Your task to perform on an android device: Do I have any events this weekend? Image 0: 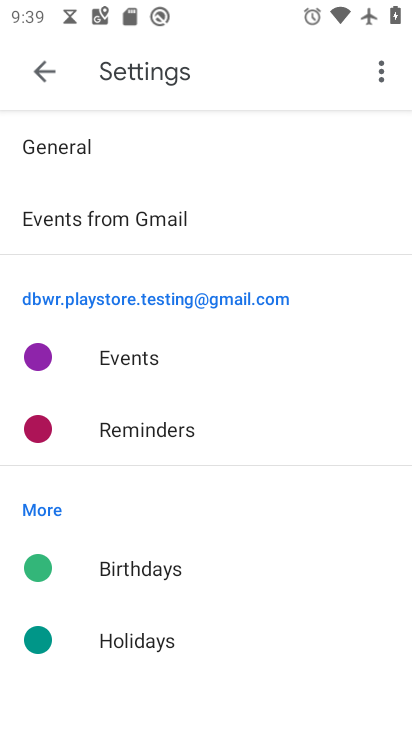
Step 0: press home button
Your task to perform on an android device: Do I have any events this weekend? Image 1: 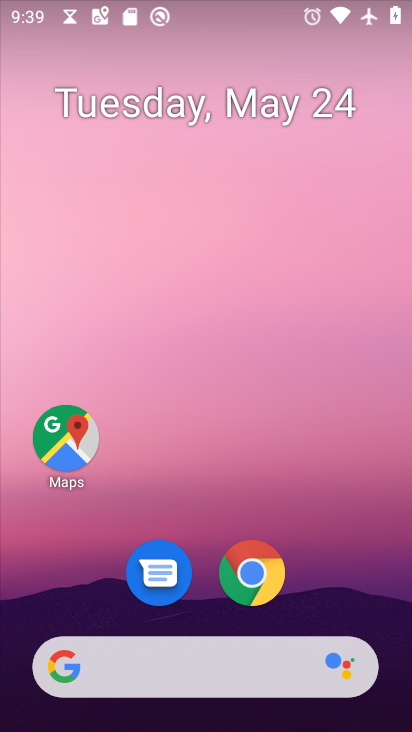
Step 1: drag from (354, 560) to (389, 106)
Your task to perform on an android device: Do I have any events this weekend? Image 2: 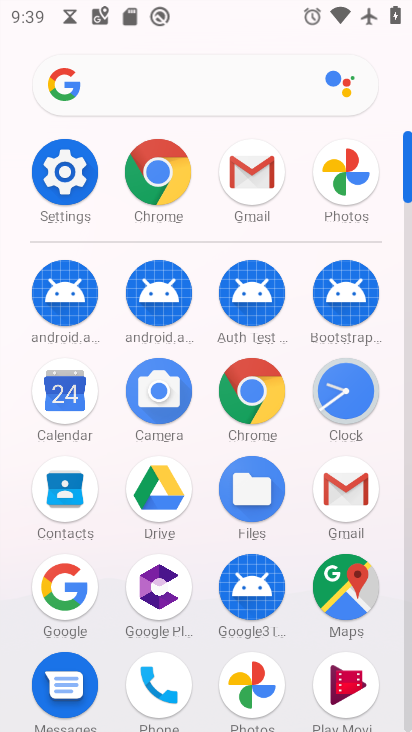
Step 2: drag from (380, 678) to (351, 255)
Your task to perform on an android device: Do I have any events this weekend? Image 3: 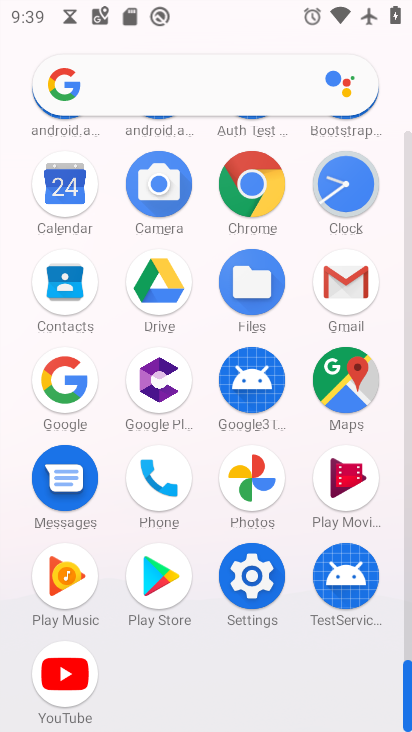
Step 3: click (360, 502)
Your task to perform on an android device: Do I have any events this weekend? Image 4: 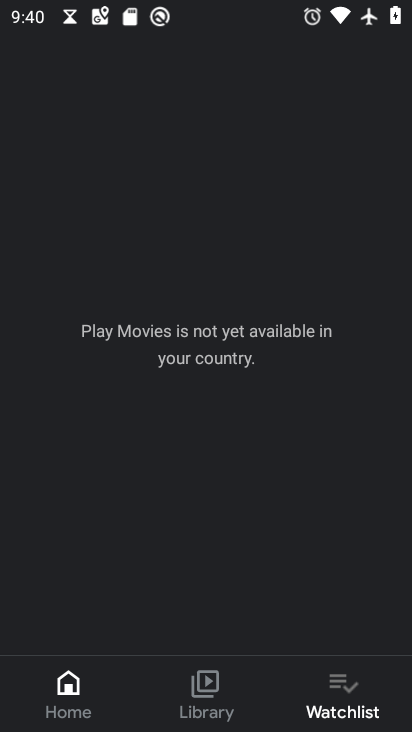
Step 4: task complete